Your task to perform on an android device: Open Youtube and go to "Your channel" Image 0: 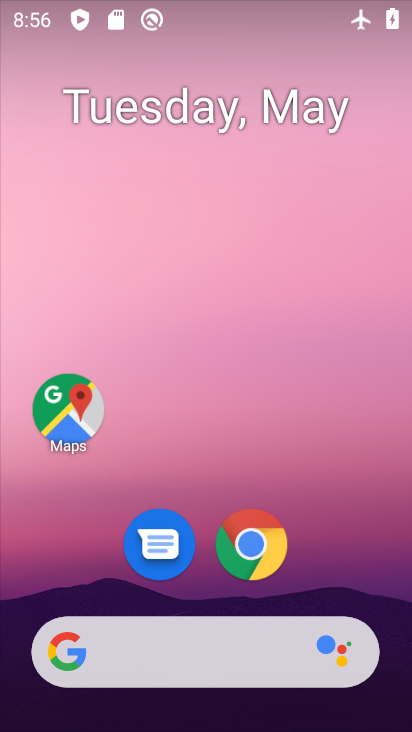
Step 0: drag from (345, 551) to (323, 129)
Your task to perform on an android device: Open Youtube and go to "Your channel" Image 1: 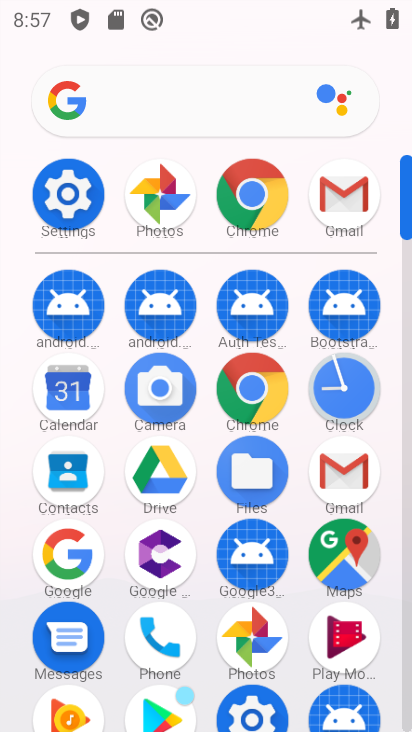
Step 1: drag from (198, 653) to (177, 317)
Your task to perform on an android device: Open Youtube and go to "Your channel" Image 2: 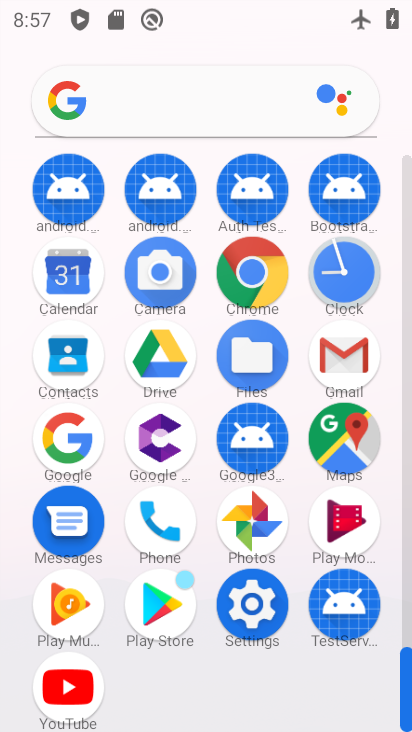
Step 2: click (80, 681)
Your task to perform on an android device: Open Youtube and go to "Your channel" Image 3: 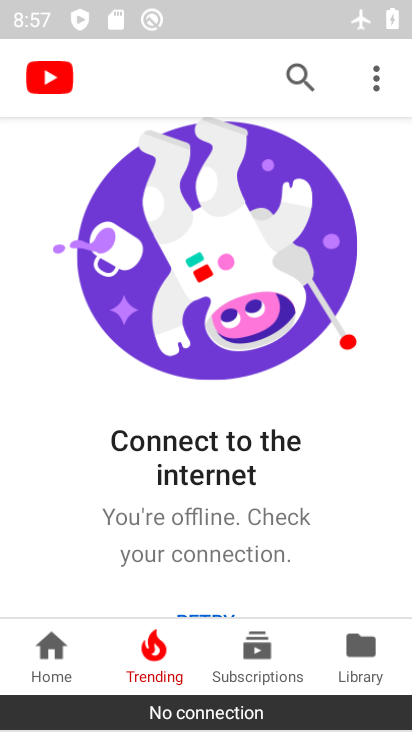
Step 3: task complete